Your task to perform on an android device: Open battery settings Image 0: 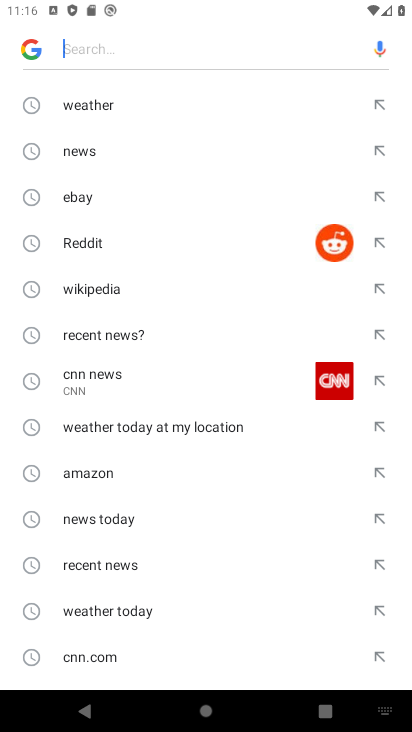
Step 0: drag from (228, 6) to (194, 332)
Your task to perform on an android device: Open battery settings Image 1: 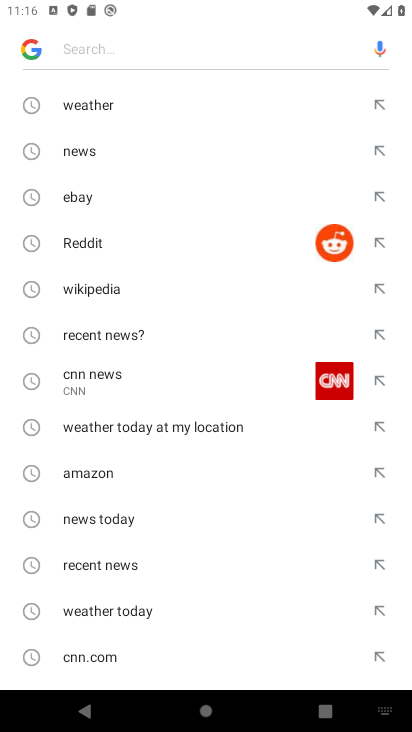
Step 1: drag from (145, 9) to (131, 663)
Your task to perform on an android device: Open battery settings Image 2: 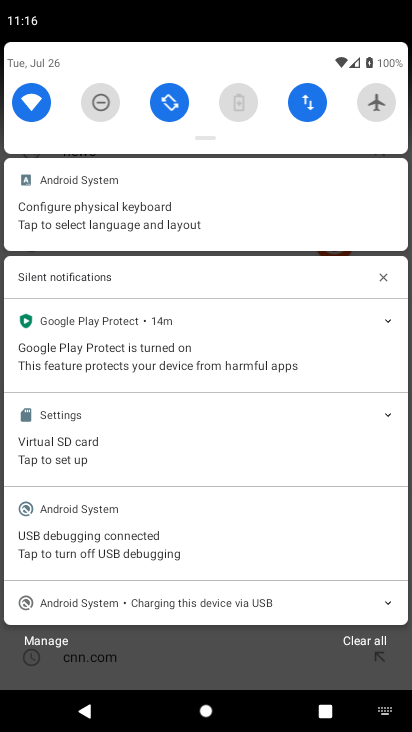
Step 2: click (252, 104)
Your task to perform on an android device: Open battery settings Image 3: 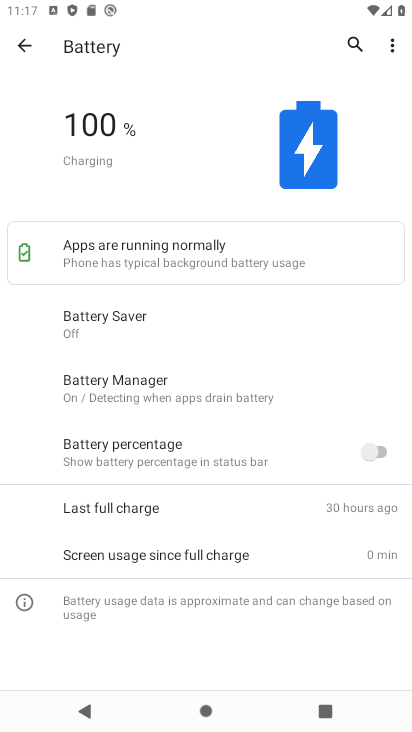
Step 3: task complete